Your task to perform on an android device: Open Android settings Image 0: 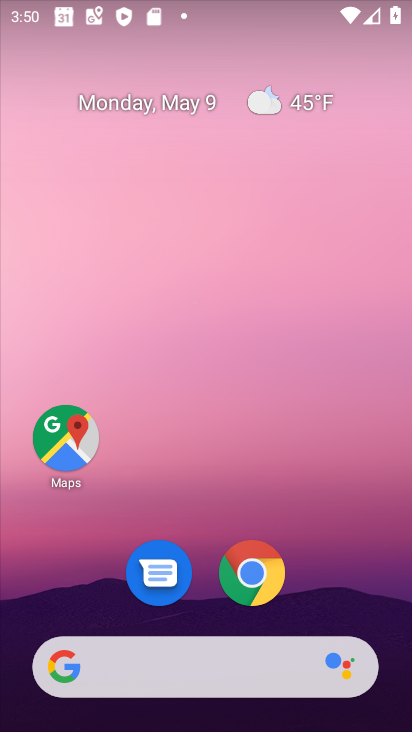
Step 0: drag from (361, 632) to (262, 0)
Your task to perform on an android device: Open Android settings Image 1: 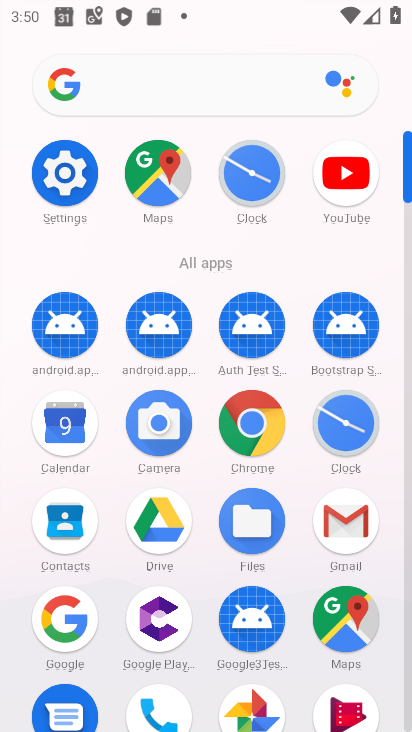
Step 1: click (65, 175)
Your task to perform on an android device: Open Android settings Image 2: 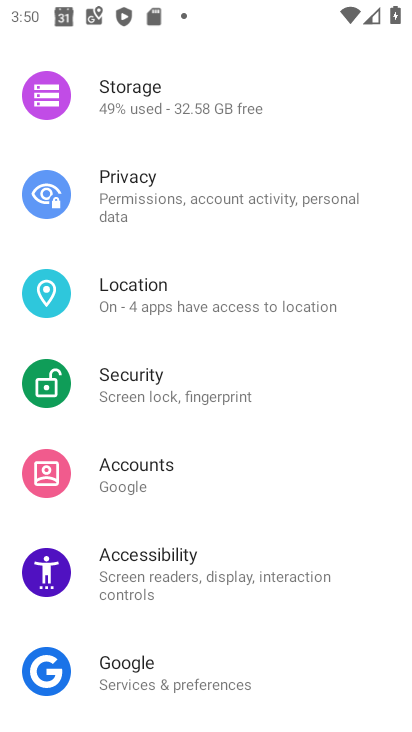
Step 2: task complete